Your task to perform on an android device: open the mobile data screen to see how much data has been used Image 0: 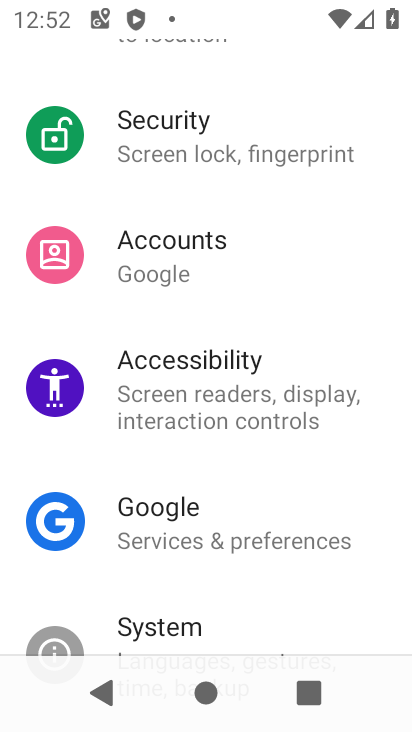
Step 0: press home button
Your task to perform on an android device: open the mobile data screen to see how much data has been used Image 1: 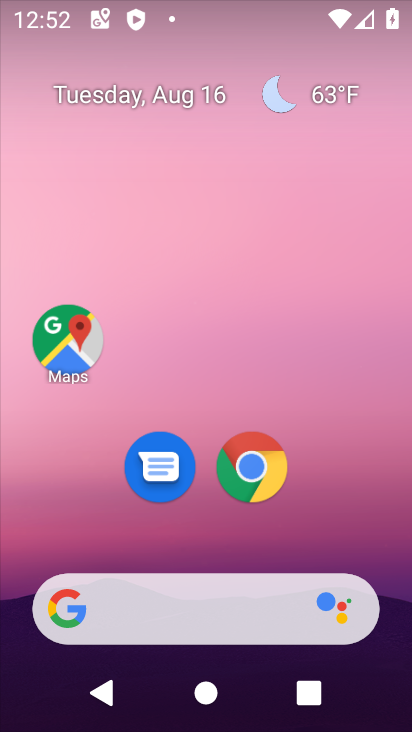
Step 1: drag from (379, 570) to (392, 121)
Your task to perform on an android device: open the mobile data screen to see how much data has been used Image 2: 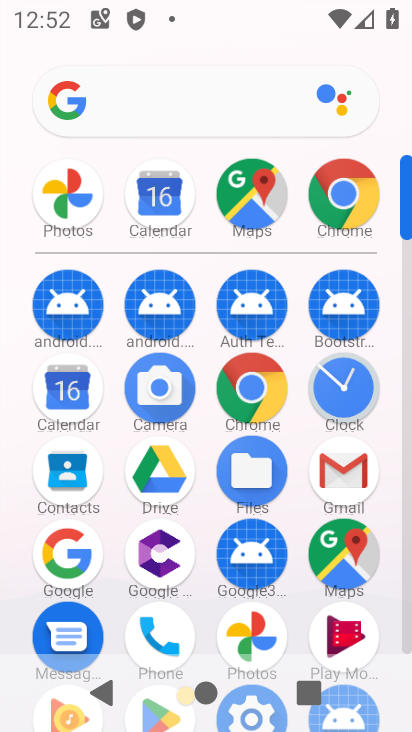
Step 2: drag from (385, 610) to (410, 437)
Your task to perform on an android device: open the mobile data screen to see how much data has been used Image 3: 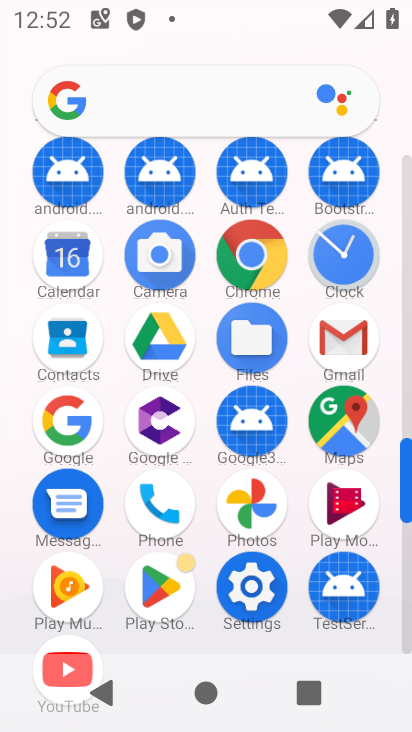
Step 3: click (245, 591)
Your task to perform on an android device: open the mobile data screen to see how much data has been used Image 4: 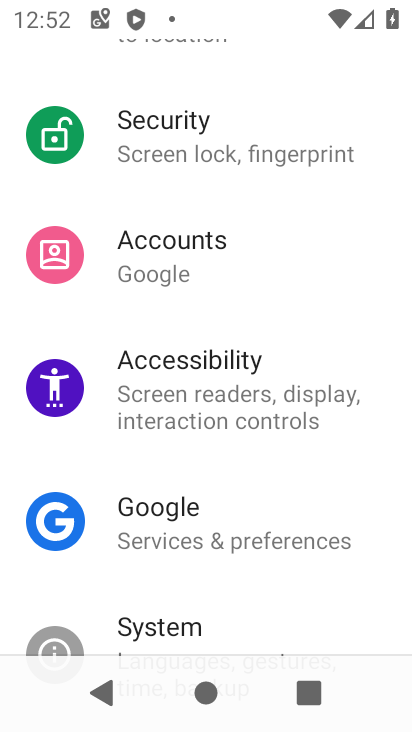
Step 4: drag from (375, 270) to (387, 380)
Your task to perform on an android device: open the mobile data screen to see how much data has been used Image 5: 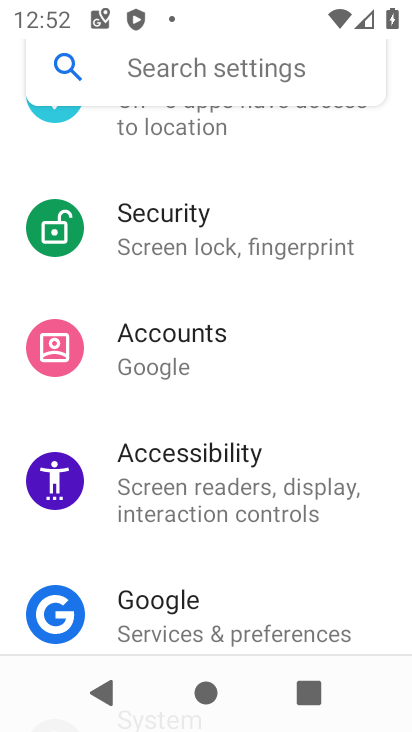
Step 5: drag from (383, 274) to (386, 401)
Your task to perform on an android device: open the mobile data screen to see how much data has been used Image 6: 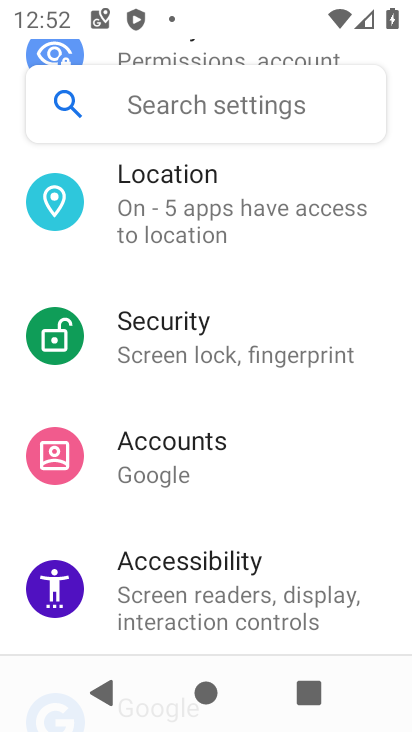
Step 6: drag from (386, 290) to (380, 446)
Your task to perform on an android device: open the mobile data screen to see how much data has been used Image 7: 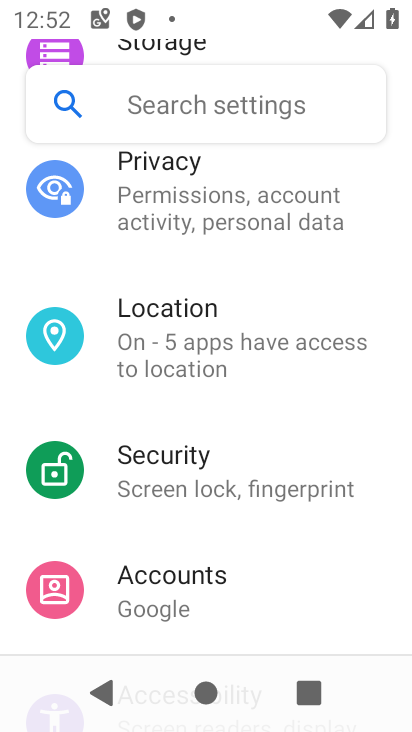
Step 7: drag from (386, 257) to (384, 395)
Your task to perform on an android device: open the mobile data screen to see how much data has been used Image 8: 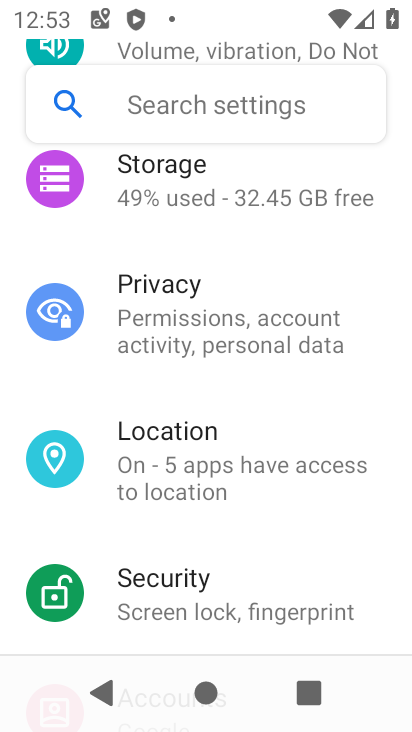
Step 8: drag from (386, 248) to (377, 376)
Your task to perform on an android device: open the mobile data screen to see how much data has been used Image 9: 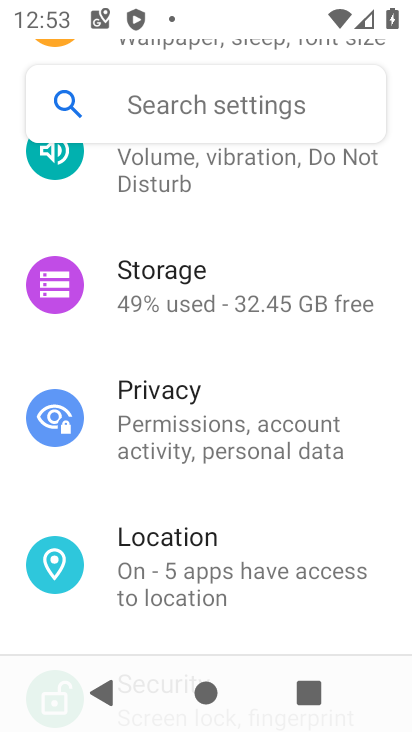
Step 9: drag from (378, 238) to (379, 378)
Your task to perform on an android device: open the mobile data screen to see how much data has been used Image 10: 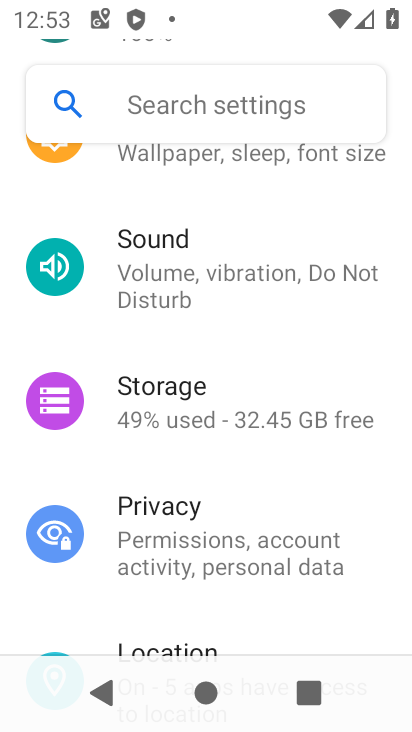
Step 10: drag from (407, 196) to (392, 346)
Your task to perform on an android device: open the mobile data screen to see how much data has been used Image 11: 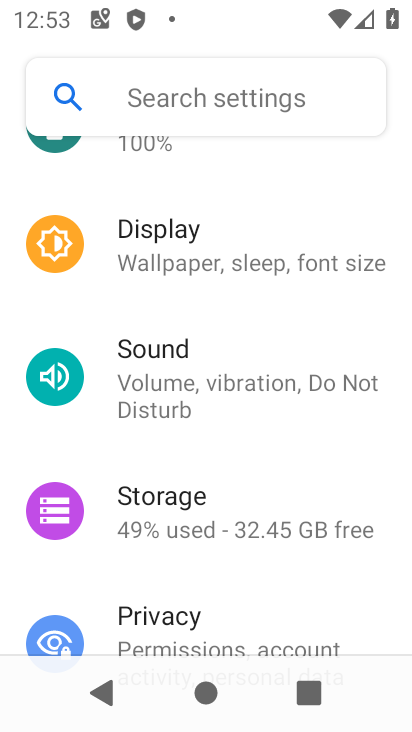
Step 11: drag from (390, 162) to (400, 426)
Your task to perform on an android device: open the mobile data screen to see how much data has been used Image 12: 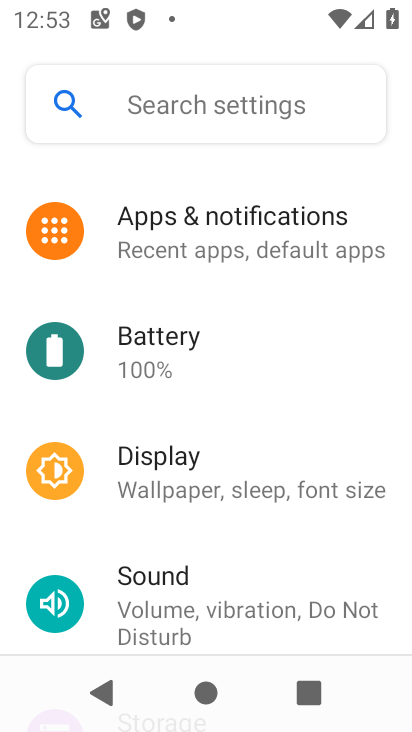
Step 12: drag from (379, 297) to (371, 507)
Your task to perform on an android device: open the mobile data screen to see how much data has been used Image 13: 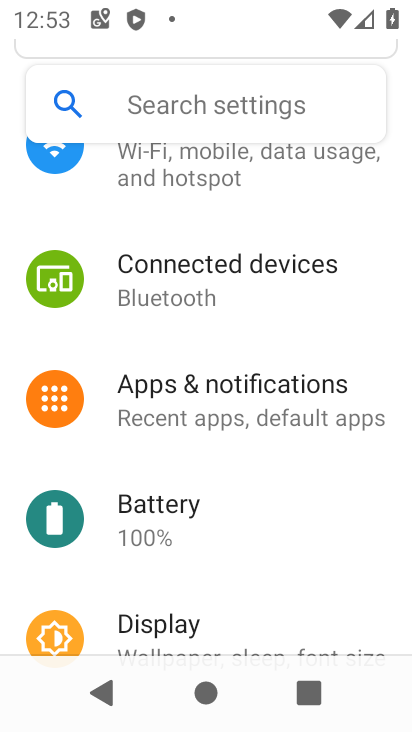
Step 13: drag from (370, 203) to (376, 476)
Your task to perform on an android device: open the mobile data screen to see how much data has been used Image 14: 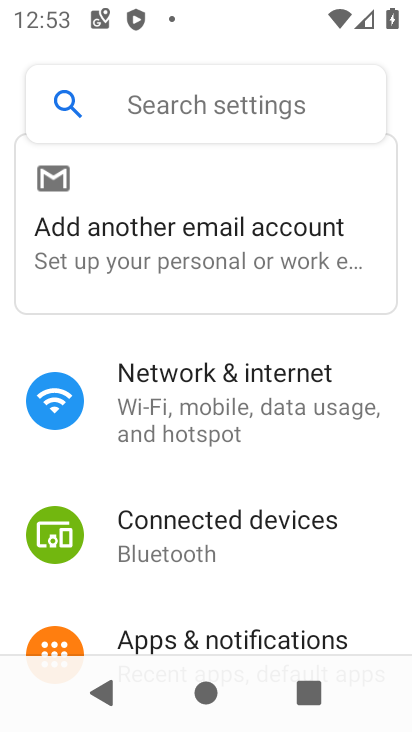
Step 14: click (265, 421)
Your task to perform on an android device: open the mobile data screen to see how much data has been used Image 15: 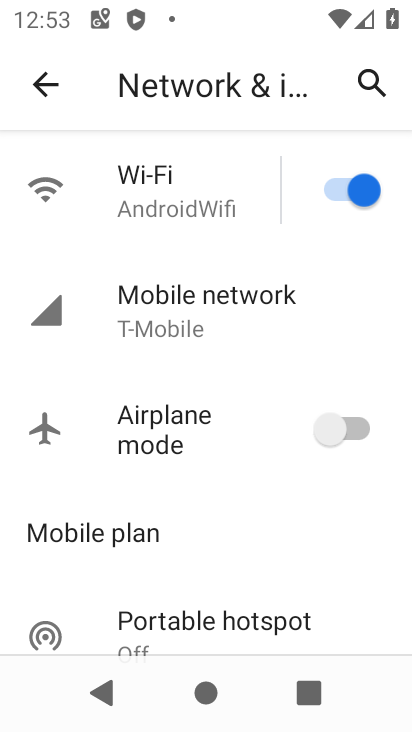
Step 15: drag from (258, 502) to (264, 338)
Your task to perform on an android device: open the mobile data screen to see how much data has been used Image 16: 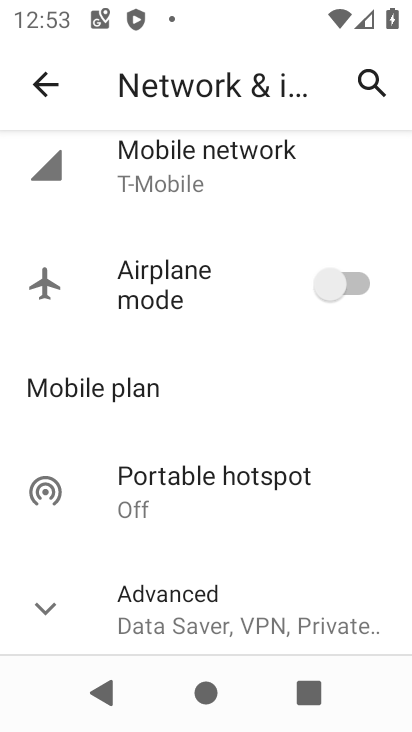
Step 16: drag from (263, 523) to (282, 324)
Your task to perform on an android device: open the mobile data screen to see how much data has been used Image 17: 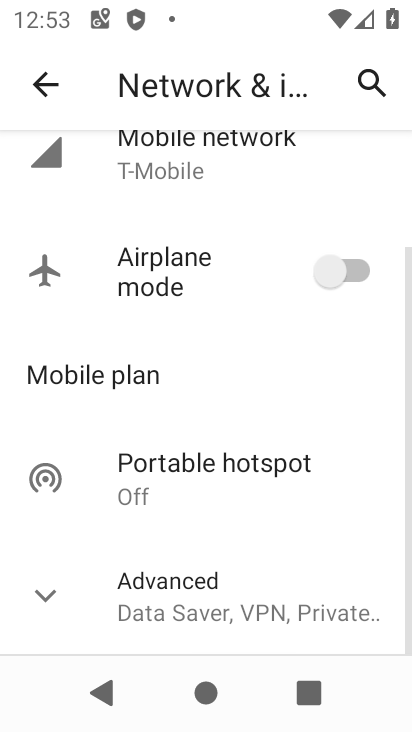
Step 17: click (222, 149)
Your task to perform on an android device: open the mobile data screen to see how much data has been used Image 18: 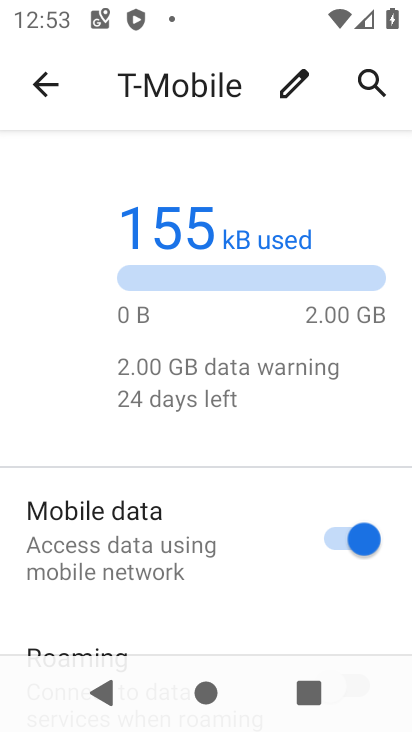
Step 18: drag from (237, 578) to (266, 336)
Your task to perform on an android device: open the mobile data screen to see how much data has been used Image 19: 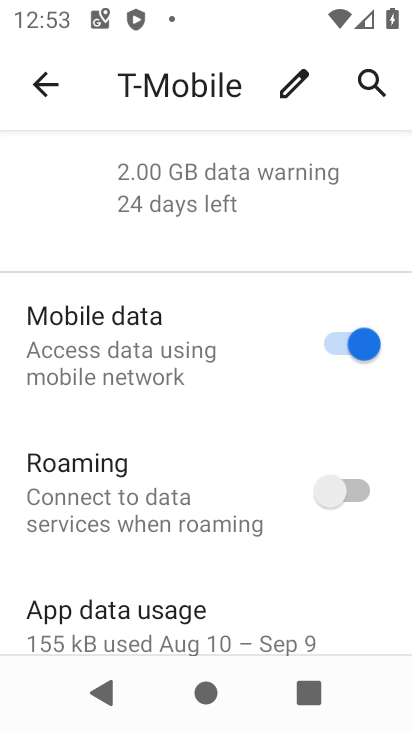
Step 19: drag from (253, 559) to (262, 360)
Your task to perform on an android device: open the mobile data screen to see how much data has been used Image 20: 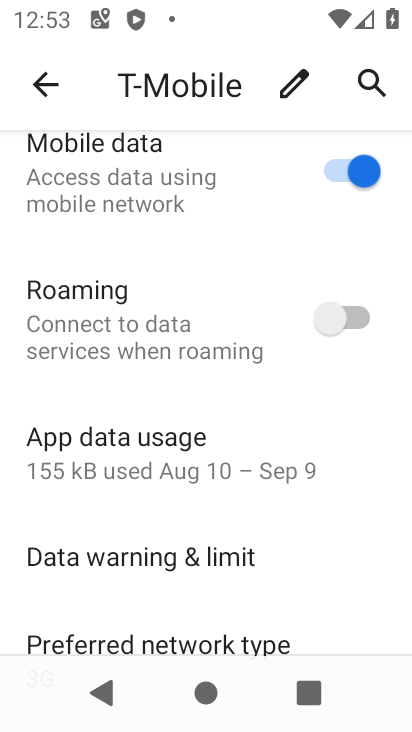
Step 20: click (259, 457)
Your task to perform on an android device: open the mobile data screen to see how much data has been used Image 21: 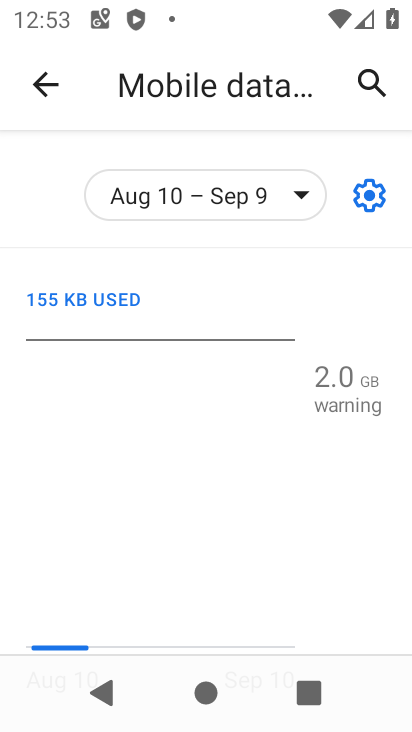
Step 21: task complete